Your task to perform on an android device: Open CNN.com Image 0: 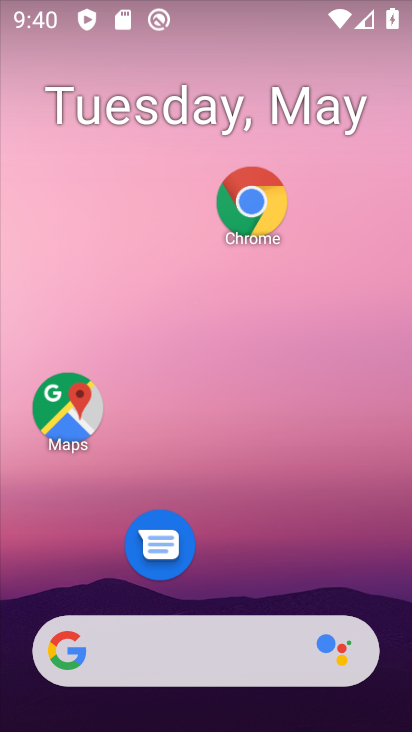
Step 0: click (236, 223)
Your task to perform on an android device: Open CNN.com Image 1: 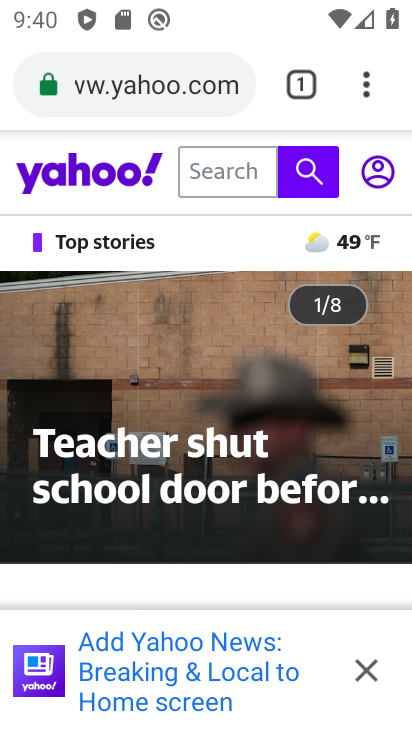
Step 1: click (174, 95)
Your task to perform on an android device: Open CNN.com Image 2: 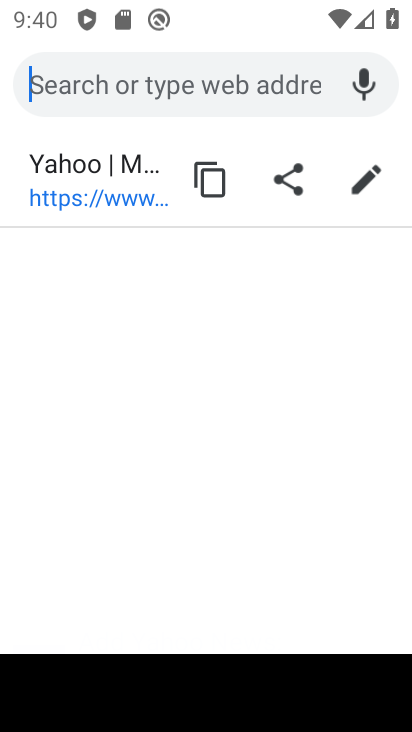
Step 2: type "cnn.com"
Your task to perform on an android device: Open CNN.com Image 3: 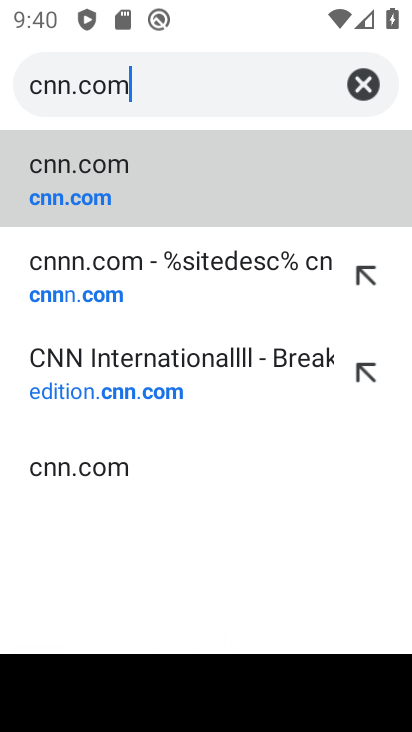
Step 3: click (99, 197)
Your task to perform on an android device: Open CNN.com Image 4: 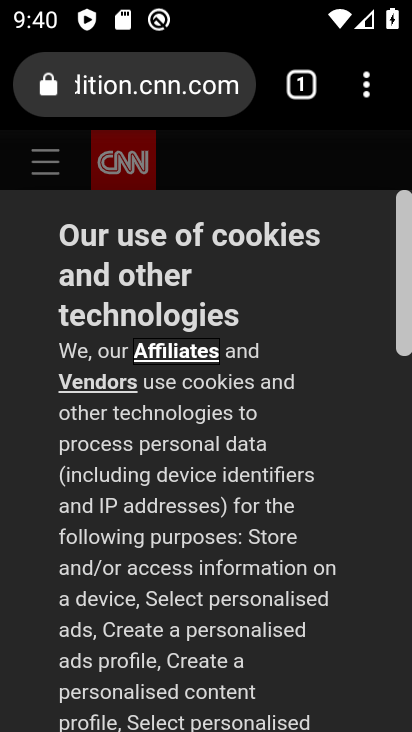
Step 4: task complete